Your task to perform on an android device: empty trash in google photos Image 0: 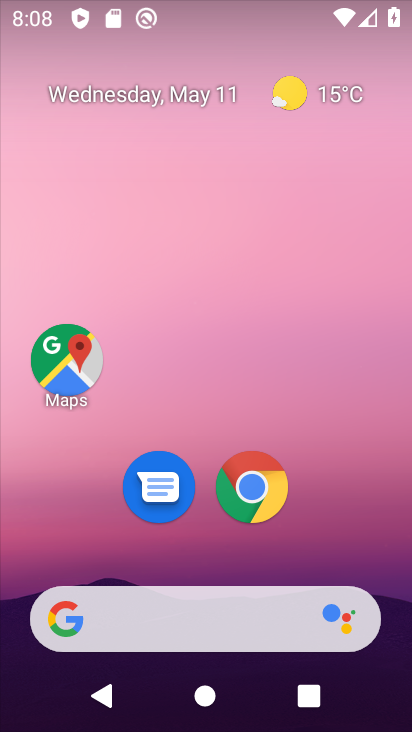
Step 0: drag from (265, 646) to (227, 286)
Your task to perform on an android device: empty trash in google photos Image 1: 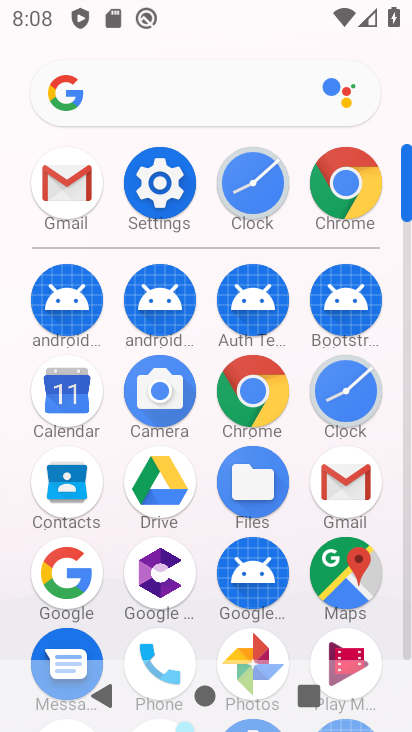
Step 1: click (250, 641)
Your task to perform on an android device: empty trash in google photos Image 2: 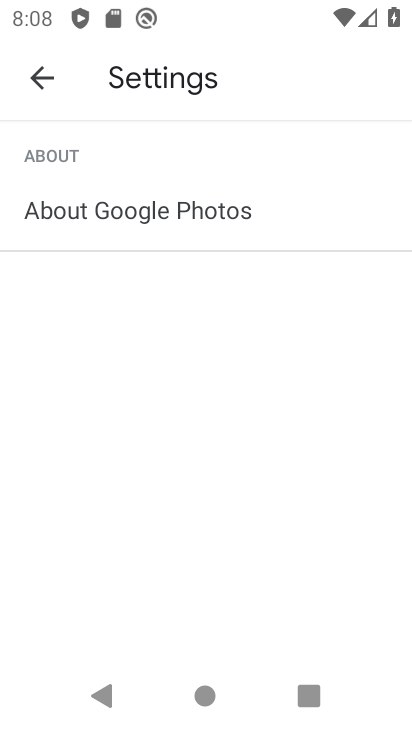
Step 2: click (38, 70)
Your task to perform on an android device: empty trash in google photos Image 3: 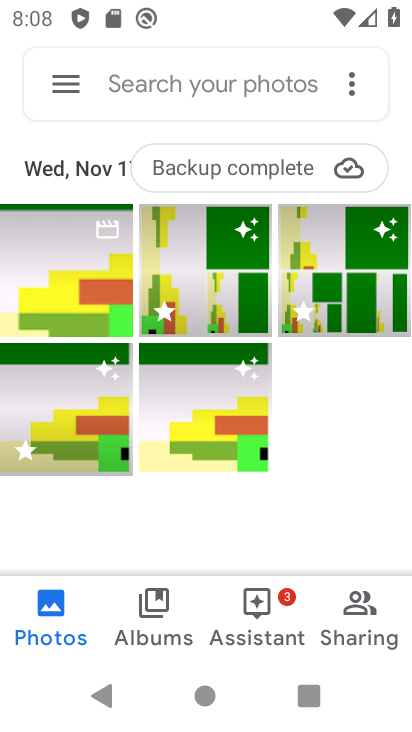
Step 3: click (61, 87)
Your task to perform on an android device: empty trash in google photos Image 4: 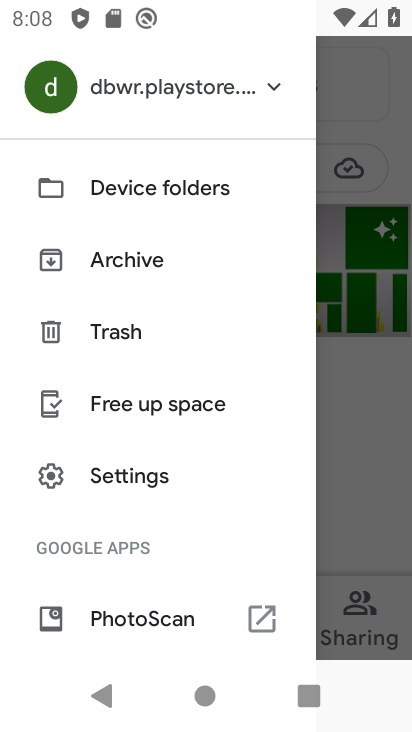
Step 4: click (137, 336)
Your task to perform on an android device: empty trash in google photos Image 5: 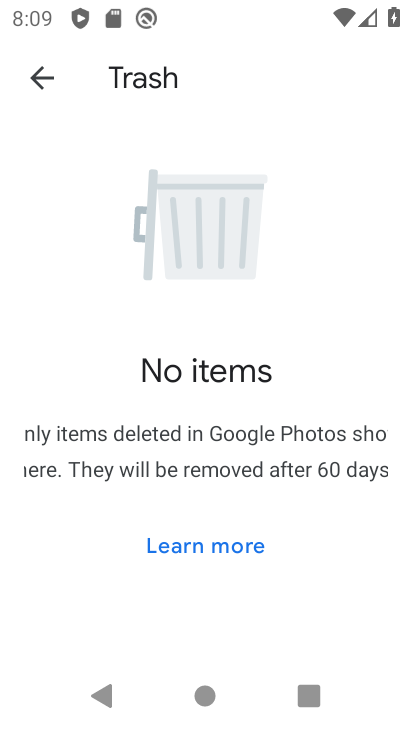
Step 5: task complete